Your task to perform on an android device: toggle pop-ups in chrome Image 0: 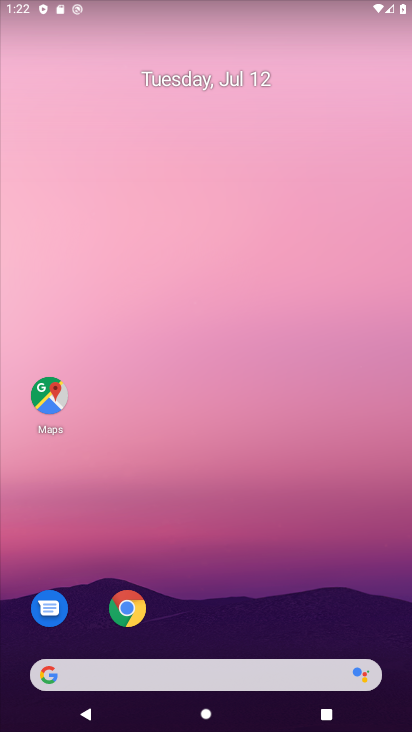
Step 0: drag from (234, 513) to (294, 26)
Your task to perform on an android device: toggle pop-ups in chrome Image 1: 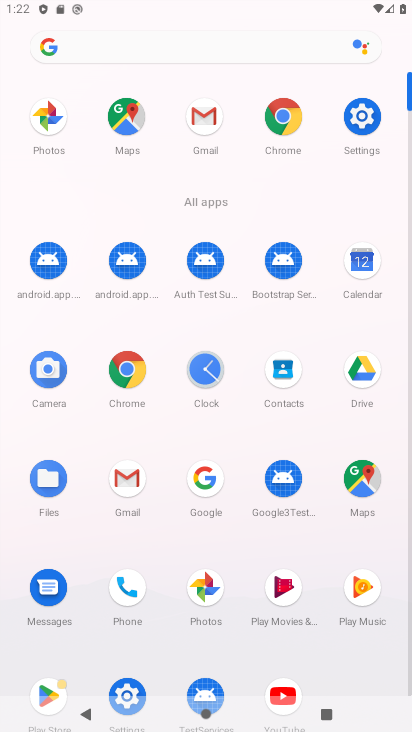
Step 1: click (126, 373)
Your task to perform on an android device: toggle pop-ups in chrome Image 2: 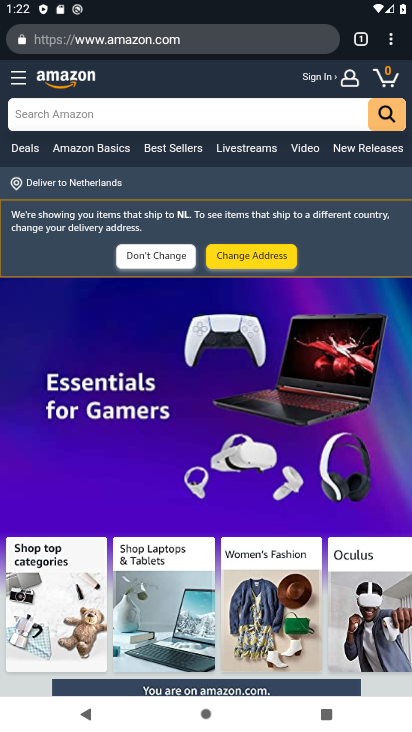
Step 2: drag from (394, 34) to (292, 470)
Your task to perform on an android device: toggle pop-ups in chrome Image 3: 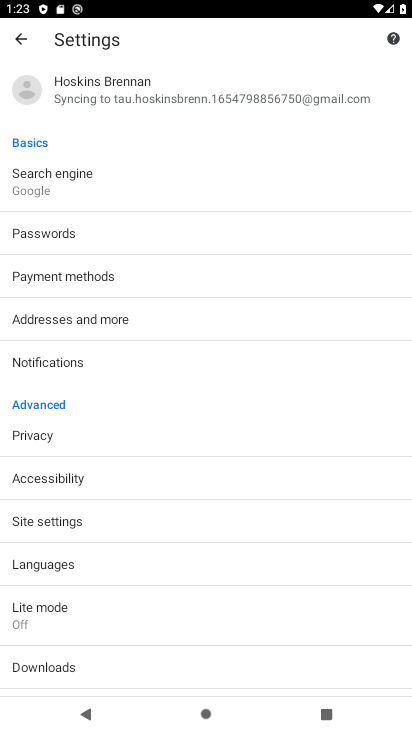
Step 3: click (66, 525)
Your task to perform on an android device: toggle pop-ups in chrome Image 4: 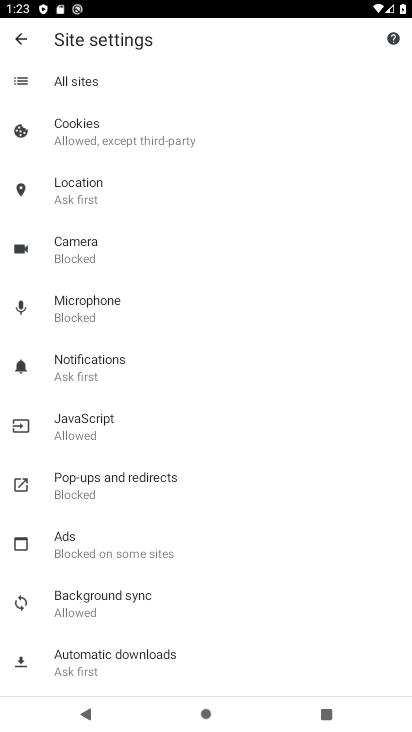
Step 4: click (132, 493)
Your task to perform on an android device: toggle pop-ups in chrome Image 5: 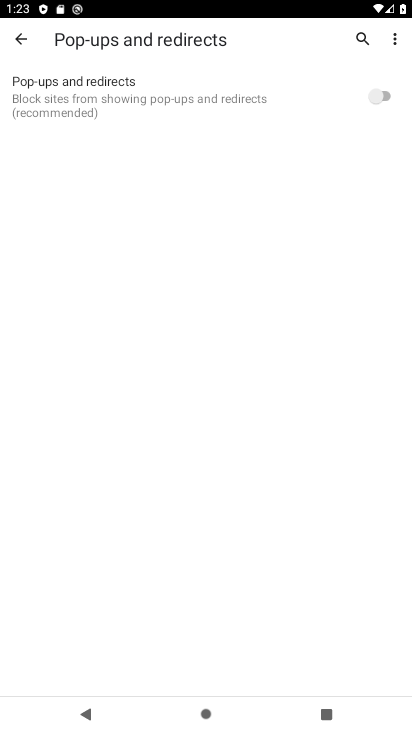
Step 5: click (391, 90)
Your task to perform on an android device: toggle pop-ups in chrome Image 6: 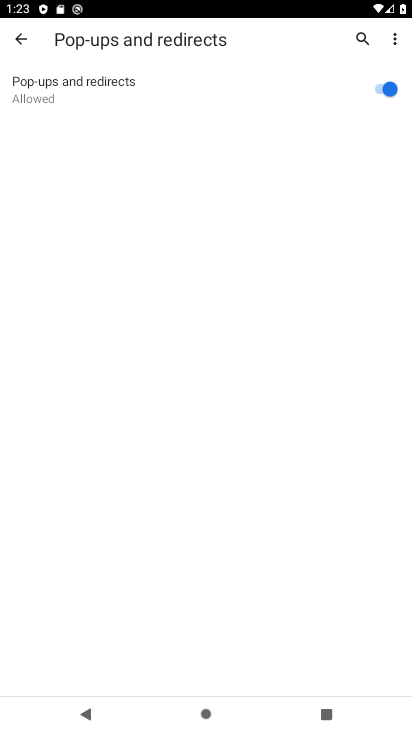
Step 6: task complete